Your task to perform on an android device: set the stopwatch Image 0: 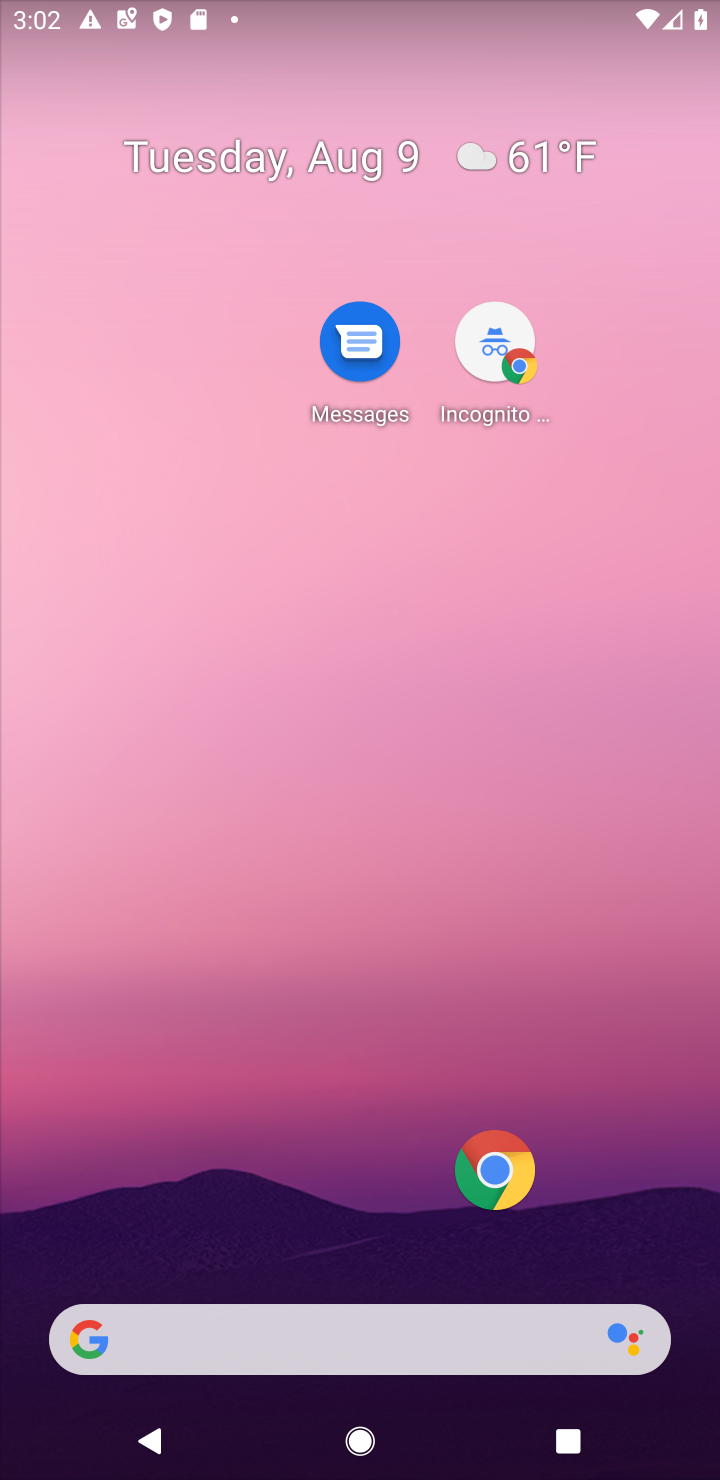
Step 0: drag from (270, 874) to (493, 5)
Your task to perform on an android device: set the stopwatch Image 1: 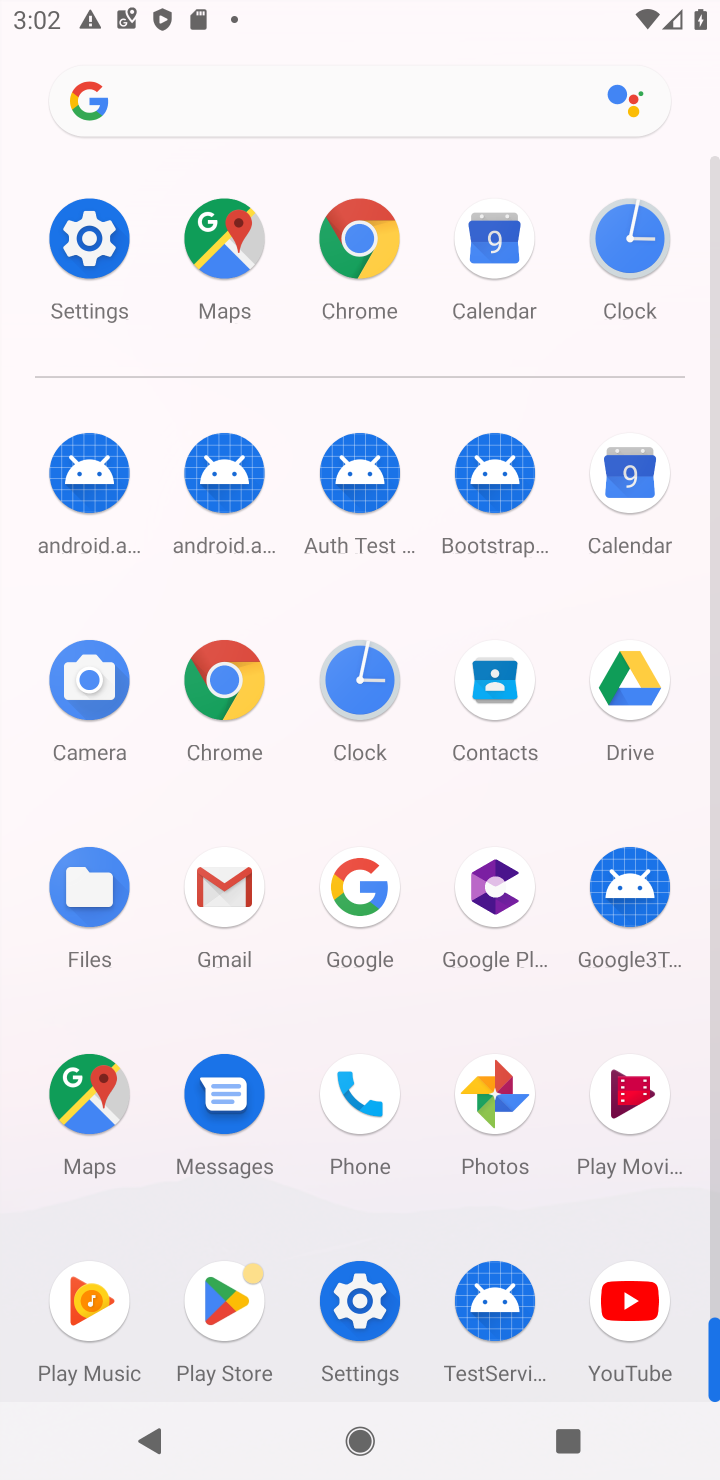
Step 1: click (625, 292)
Your task to perform on an android device: set the stopwatch Image 2: 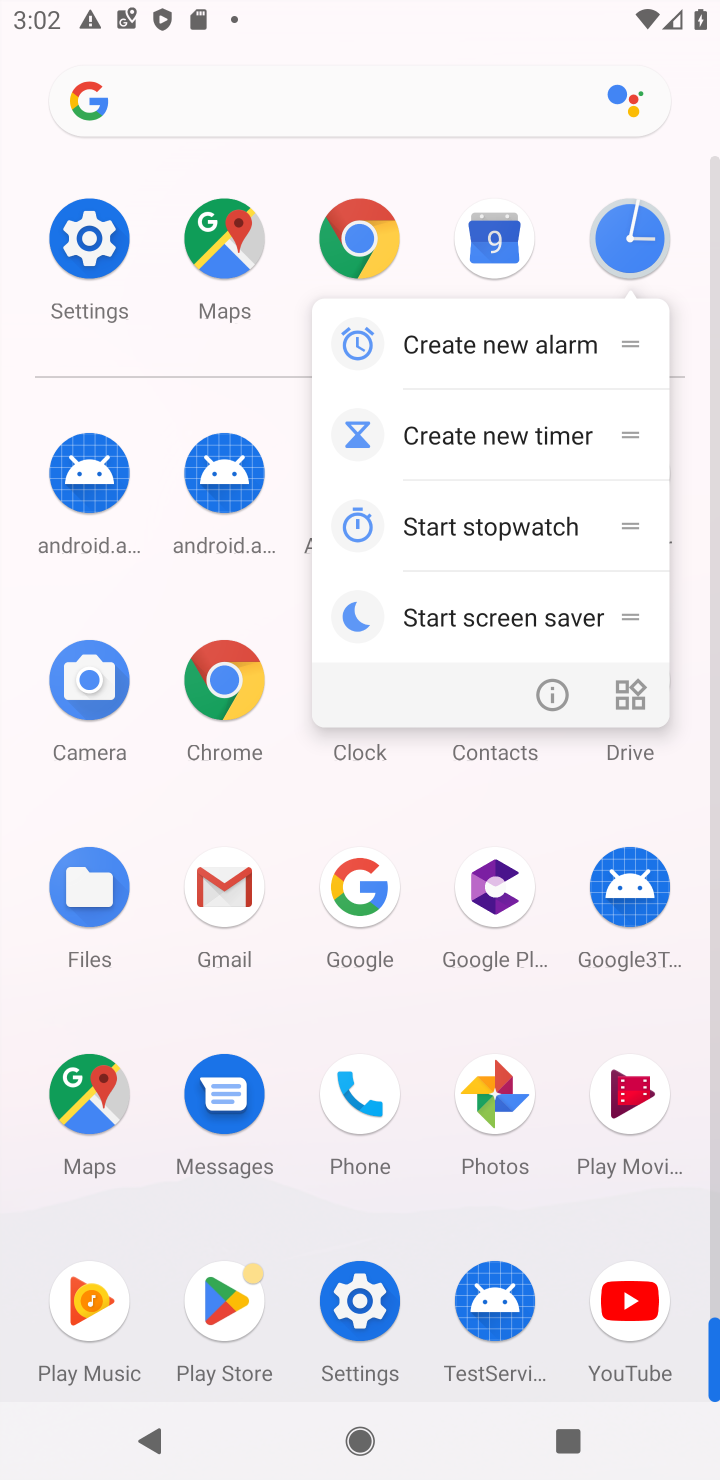
Step 2: click (665, 226)
Your task to perform on an android device: set the stopwatch Image 3: 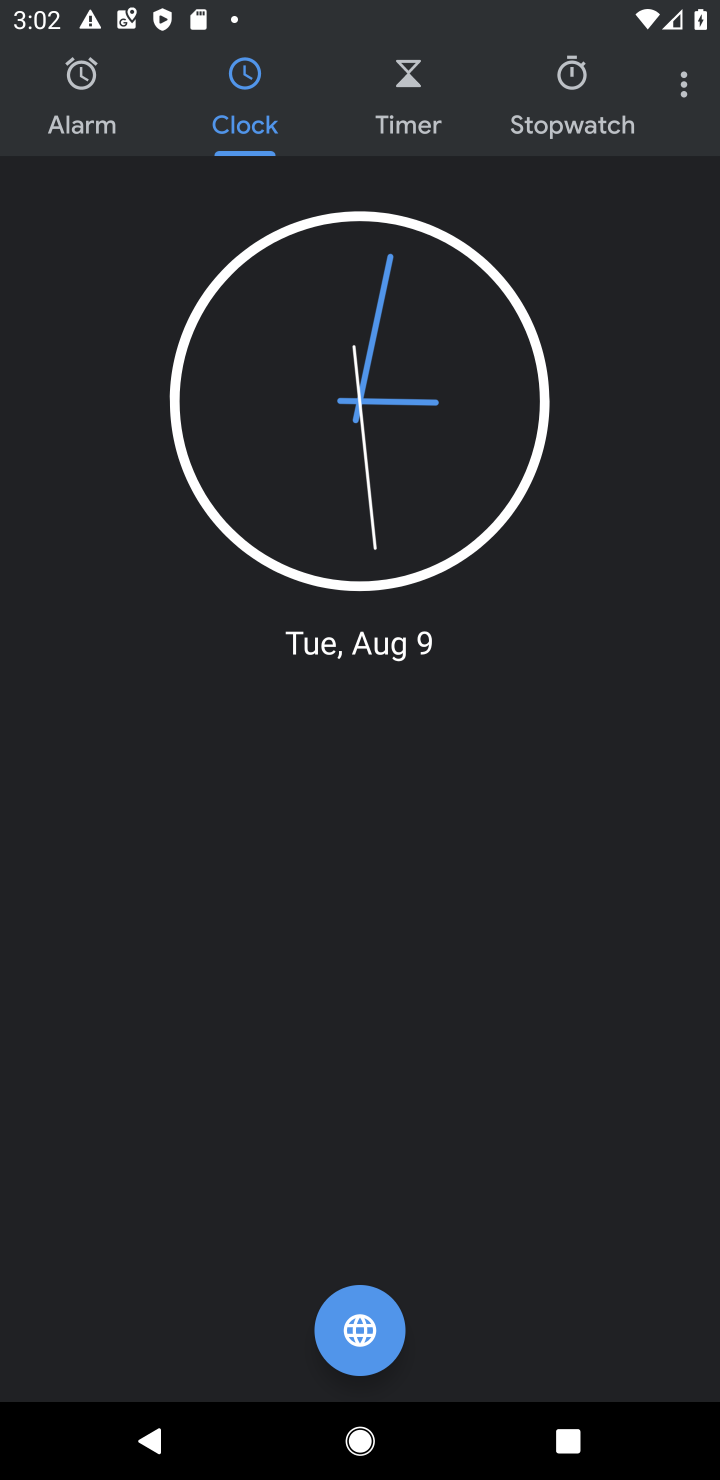
Step 3: click (593, 84)
Your task to perform on an android device: set the stopwatch Image 4: 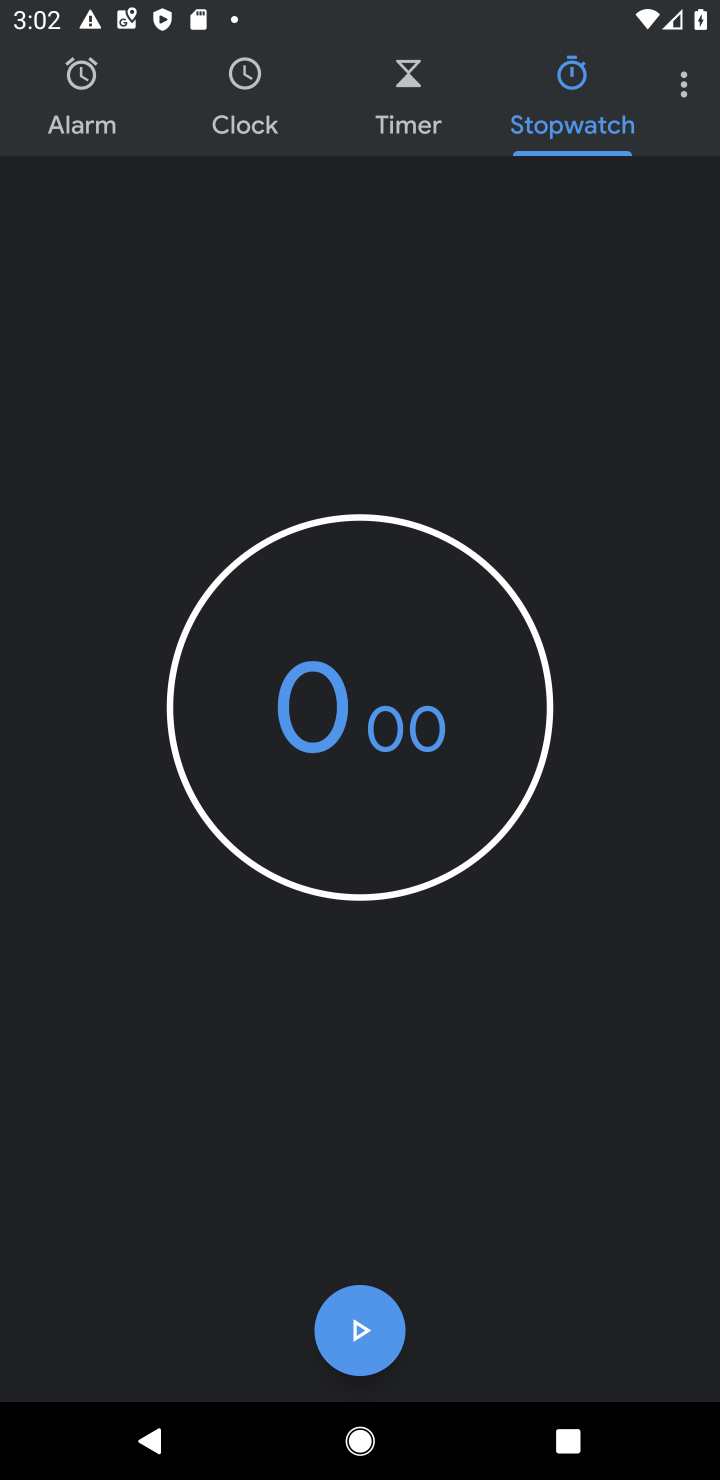
Step 4: click (368, 1337)
Your task to perform on an android device: set the stopwatch Image 5: 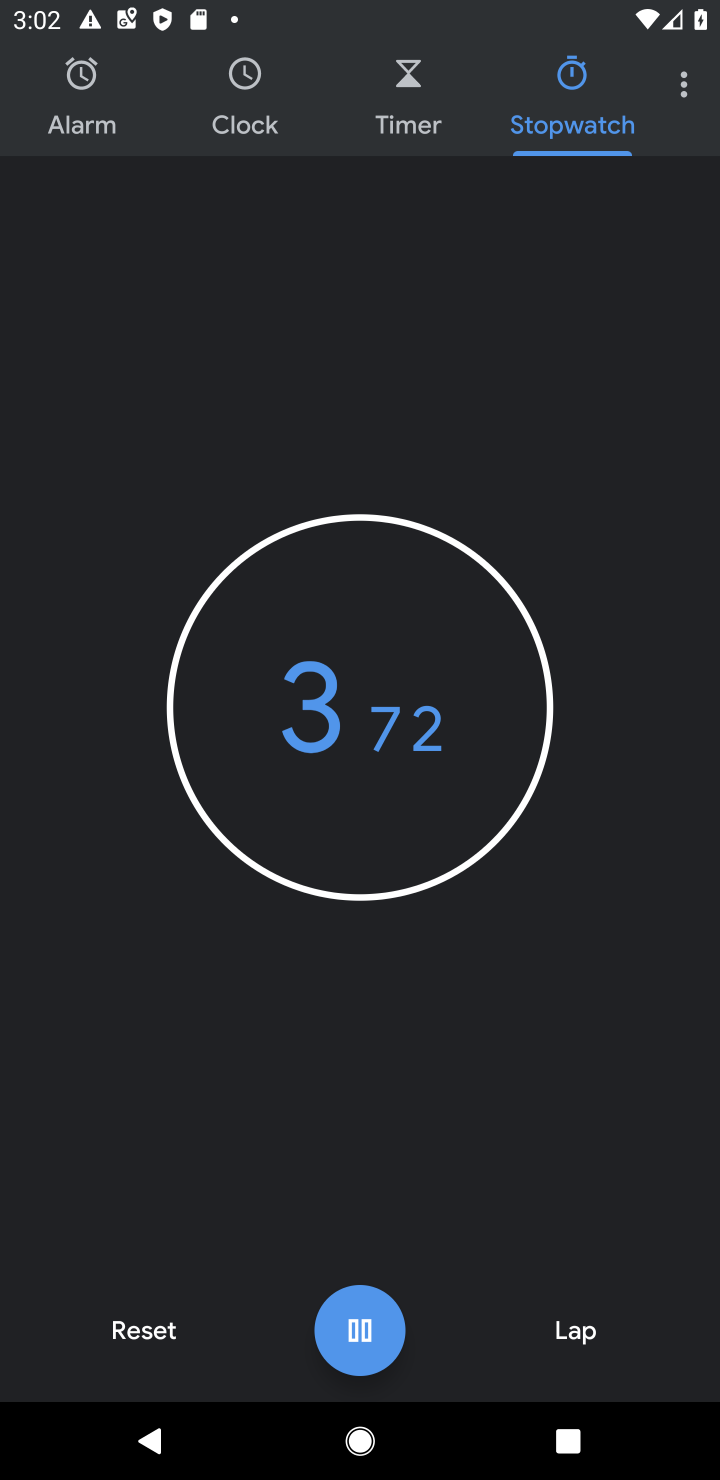
Step 5: task complete